Your task to perform on an android device: Open Android settings Image 0: 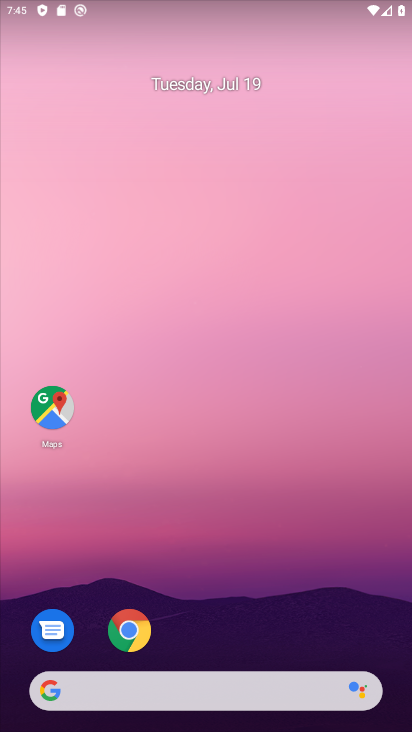
Step 0: drag from (203, 633) to (222, 245)
Your task to perform on an android device: Open Android settings Image 1: 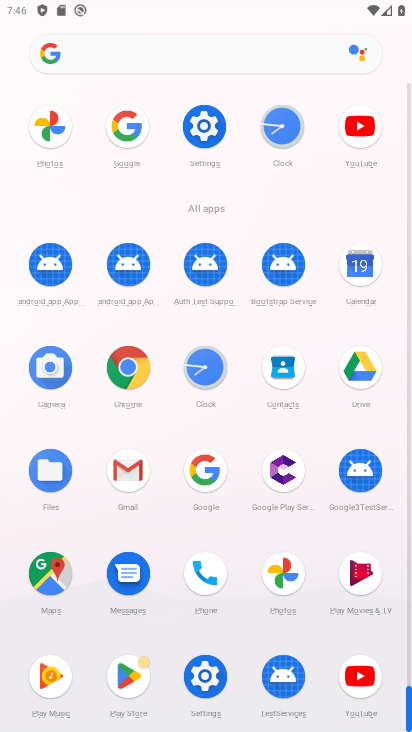
Step 1: click (197, 148)
Your task to perform on an android device: Open Android settings Image 2: 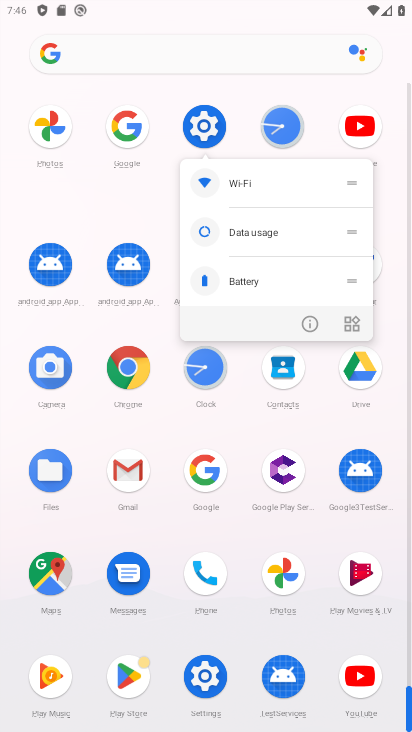
Step 2: drag from (199, 557) to (188, 397)
Your task to perform on an android device: Open Android settings Image 3: 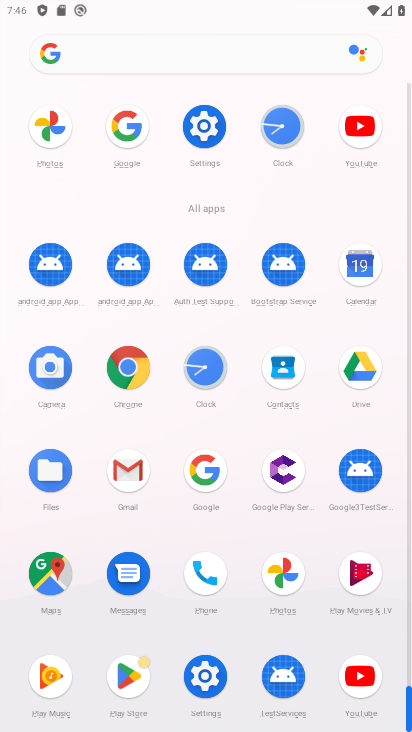
Step 3: click (209, 147)
Your task to perform on an android device: Open Android settings Image 4: 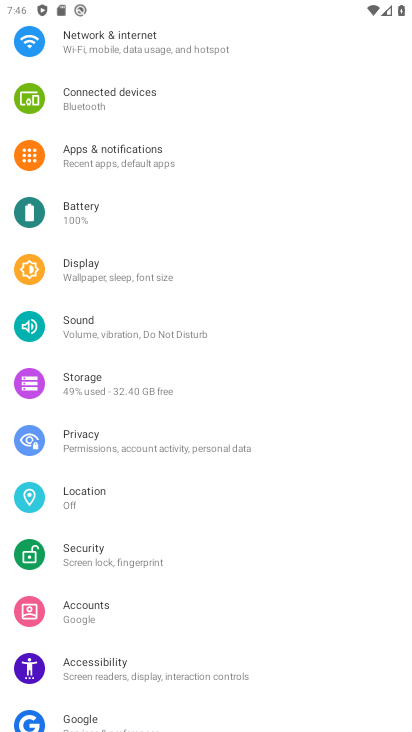
Step 4: drag from (130, 539) to (191, 53)
Your task to perform on an android device: Open Android settings Image 5: 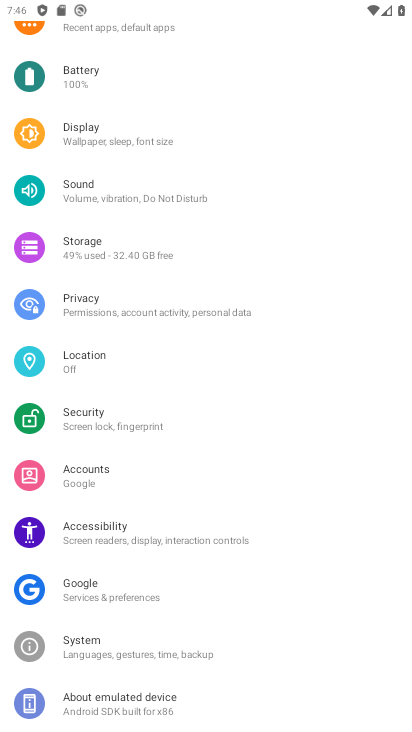
Step 5: click (154, 709)
Your task to perform on an android device: Open Android settings Image 6: 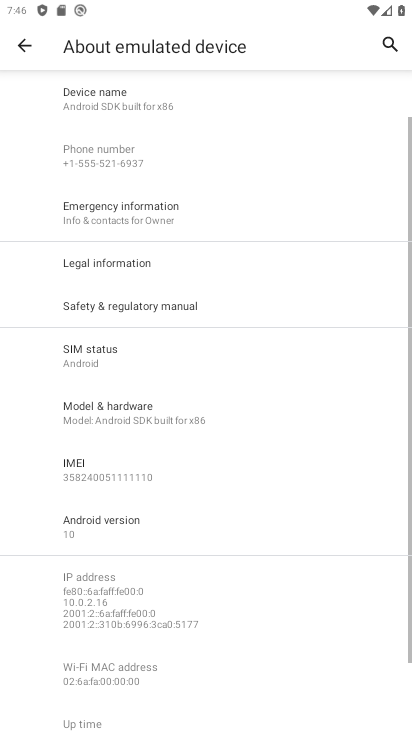
Step 6: click (132, 534)
Your task to perform on an android device: Open Android settings Image 7: 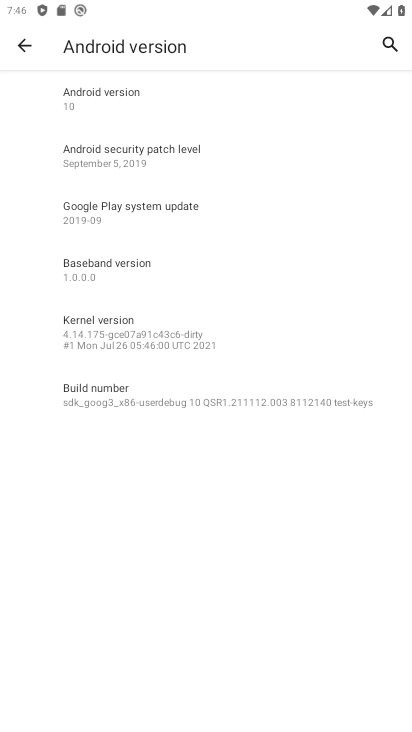
Step 7: click (173, 105)
Your task to perform on an android device: Open Android settings Image 8: 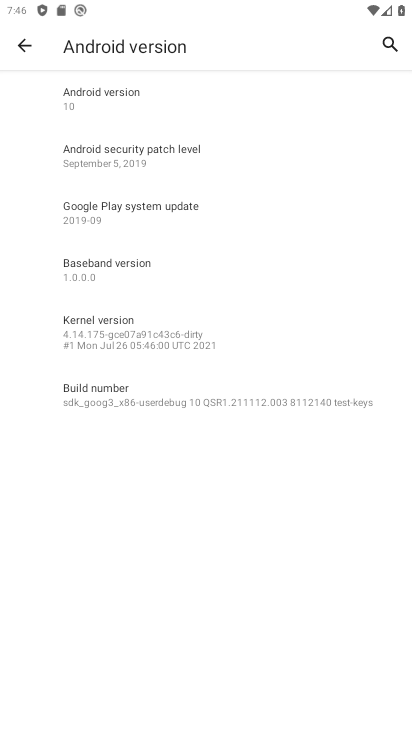
Step 8: task complete